Your task to perform on an android device: open sync settings in chrome Image 0: 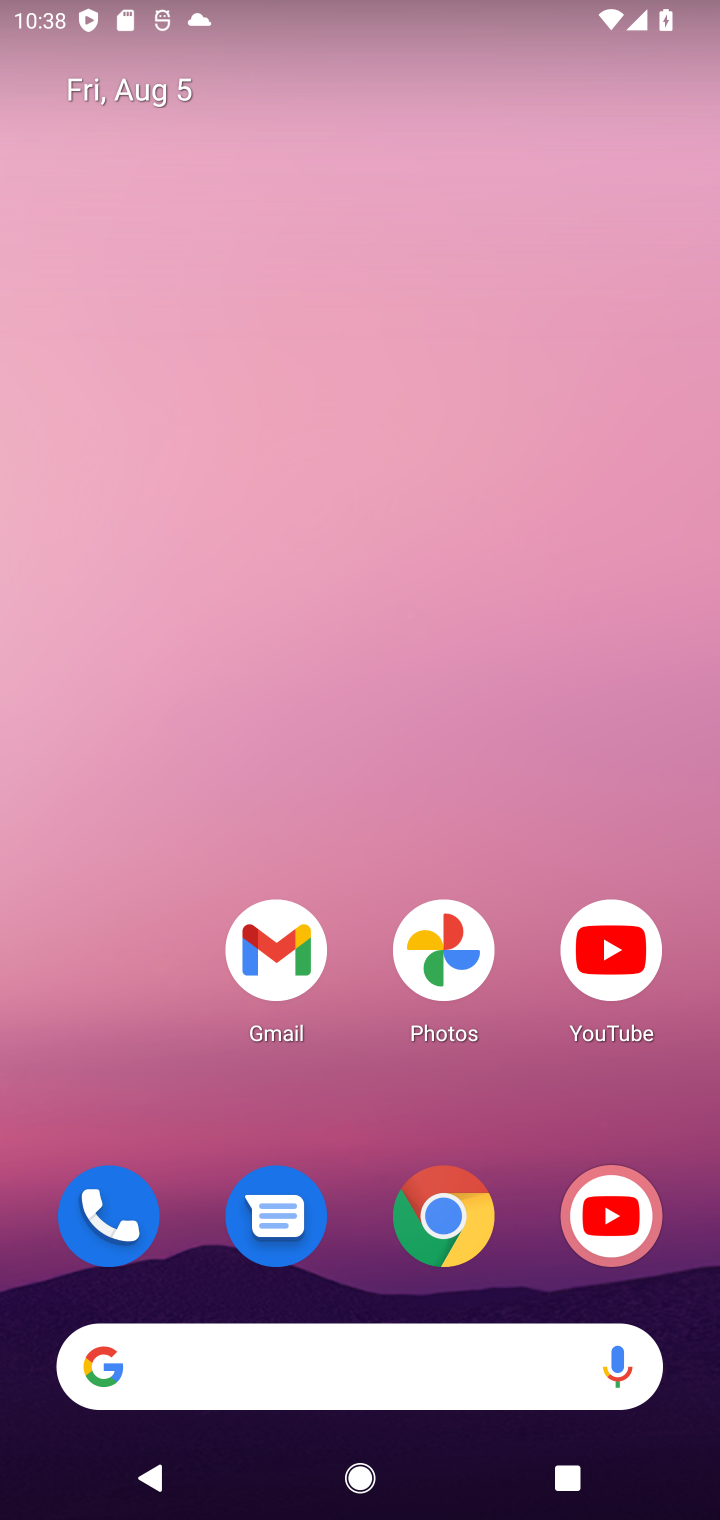
Step 0: drag from (440, 1366) to (398, 217)
Your task to perform on an android device: open sync settings in chrome Image 1: 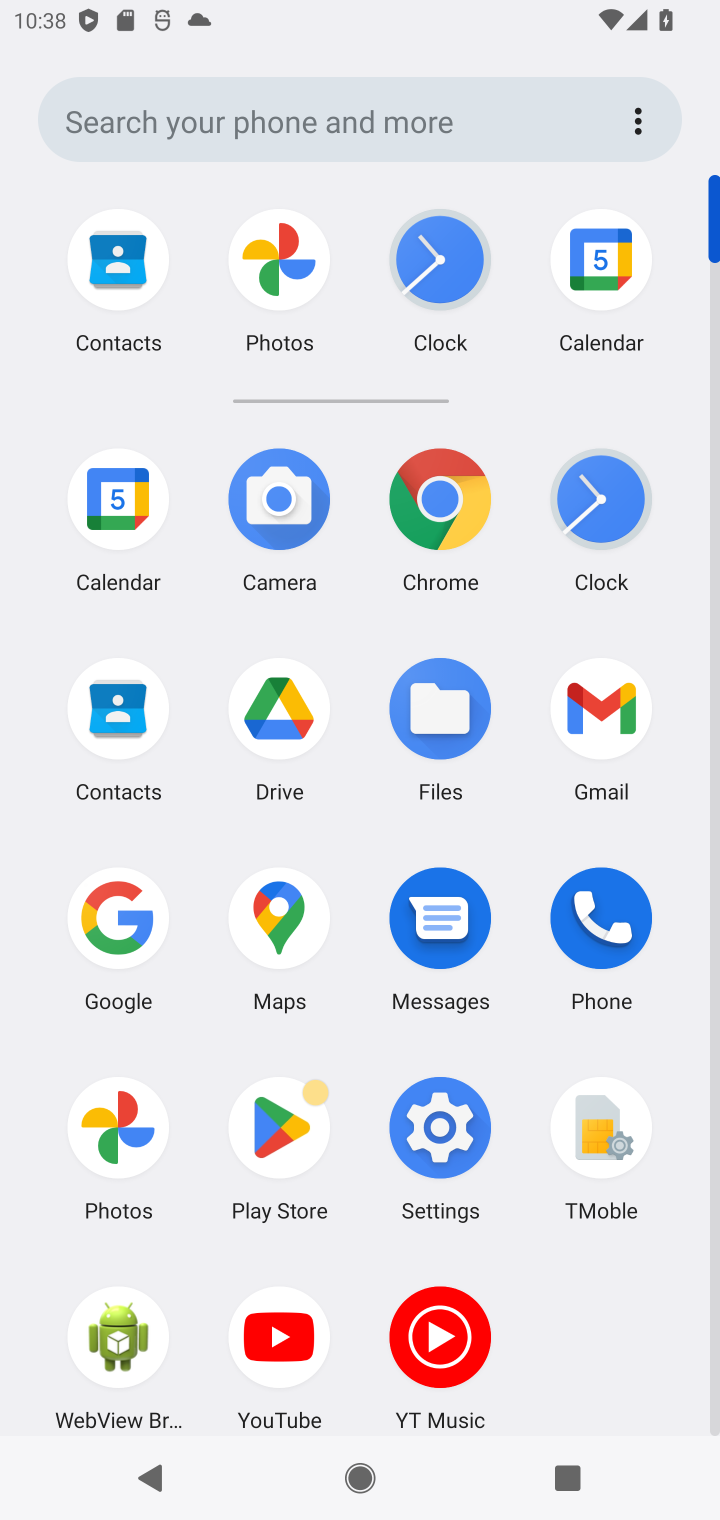
Step 1: click (438, 500)
Your task to perform on an android device: open sync settings in chrome Image 2: 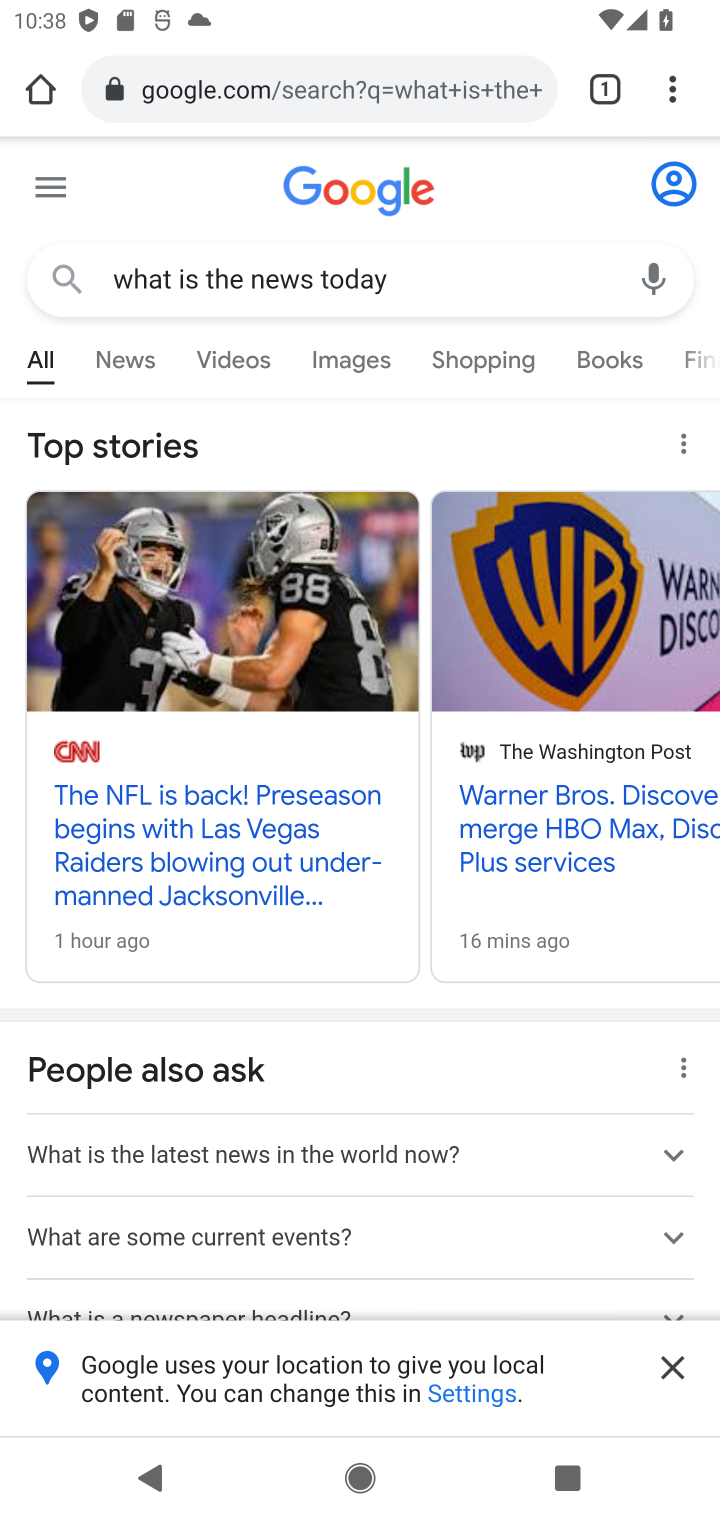
Step 2: drag from (674, 80) to (407, 1195)
Your task to perform on an android device: open sync settings in chrome Image 3: 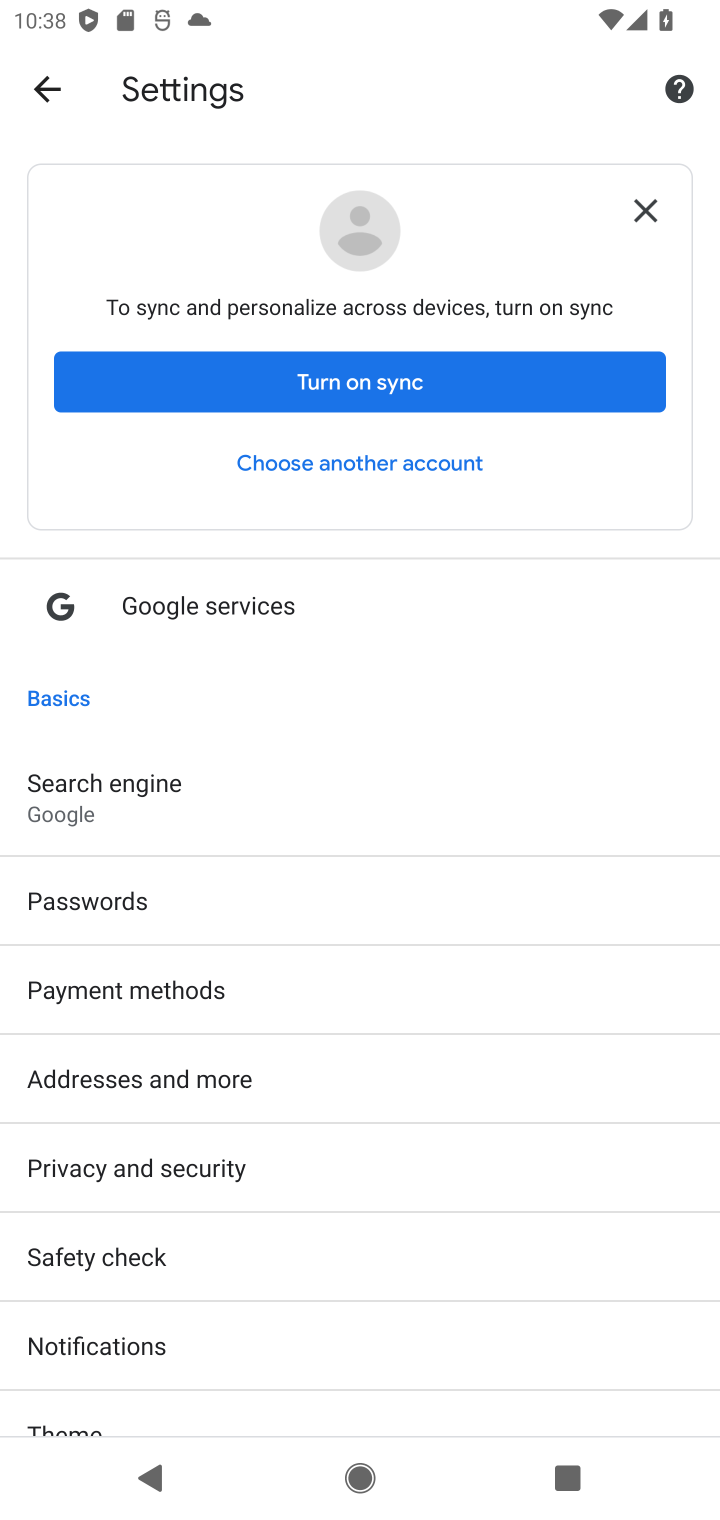
Step 3: drag from (255, 1374) to (268, 364)
Your task to perform on an android device: open sync settings in chrome Image 4: 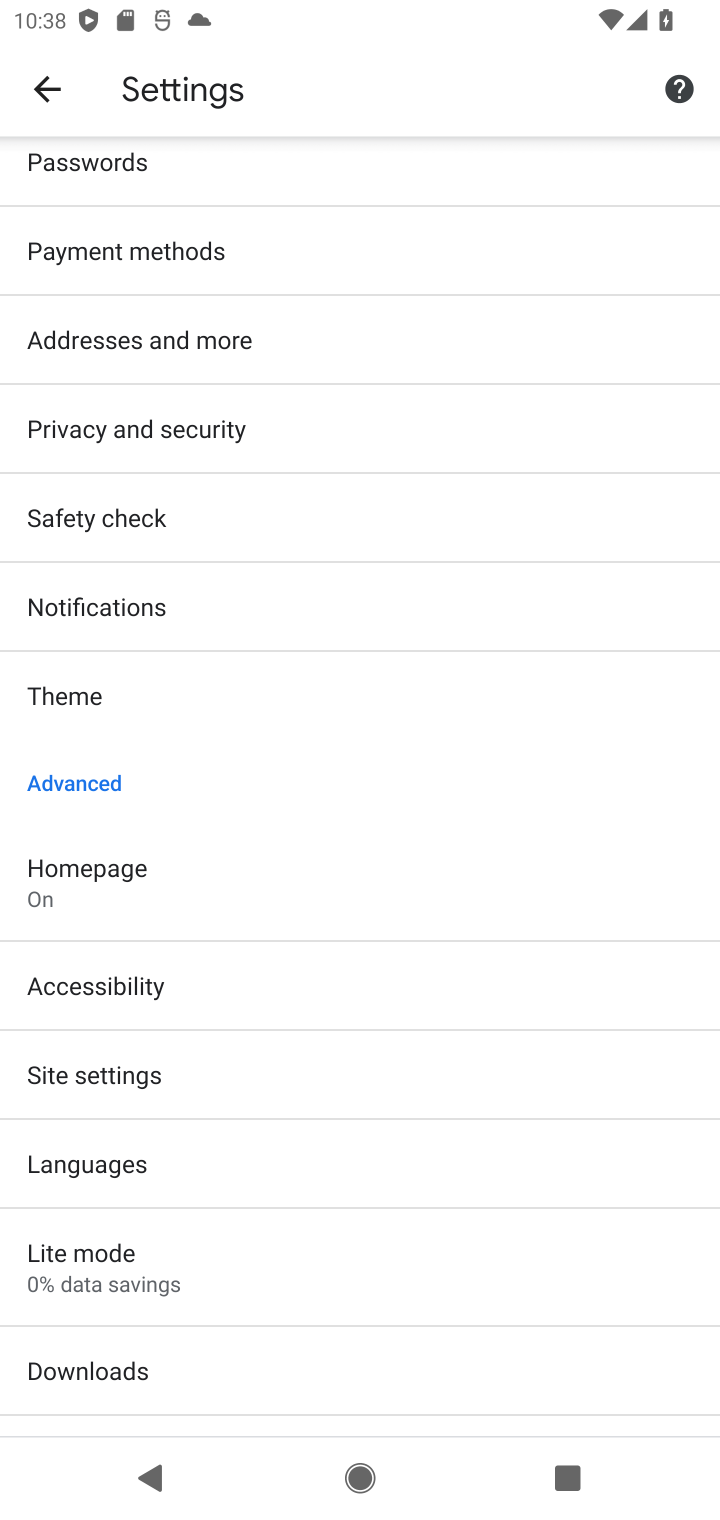
Step 4: click (131, 1078)
Your task to perform on an android device: open sync settings in chrome Image 5: 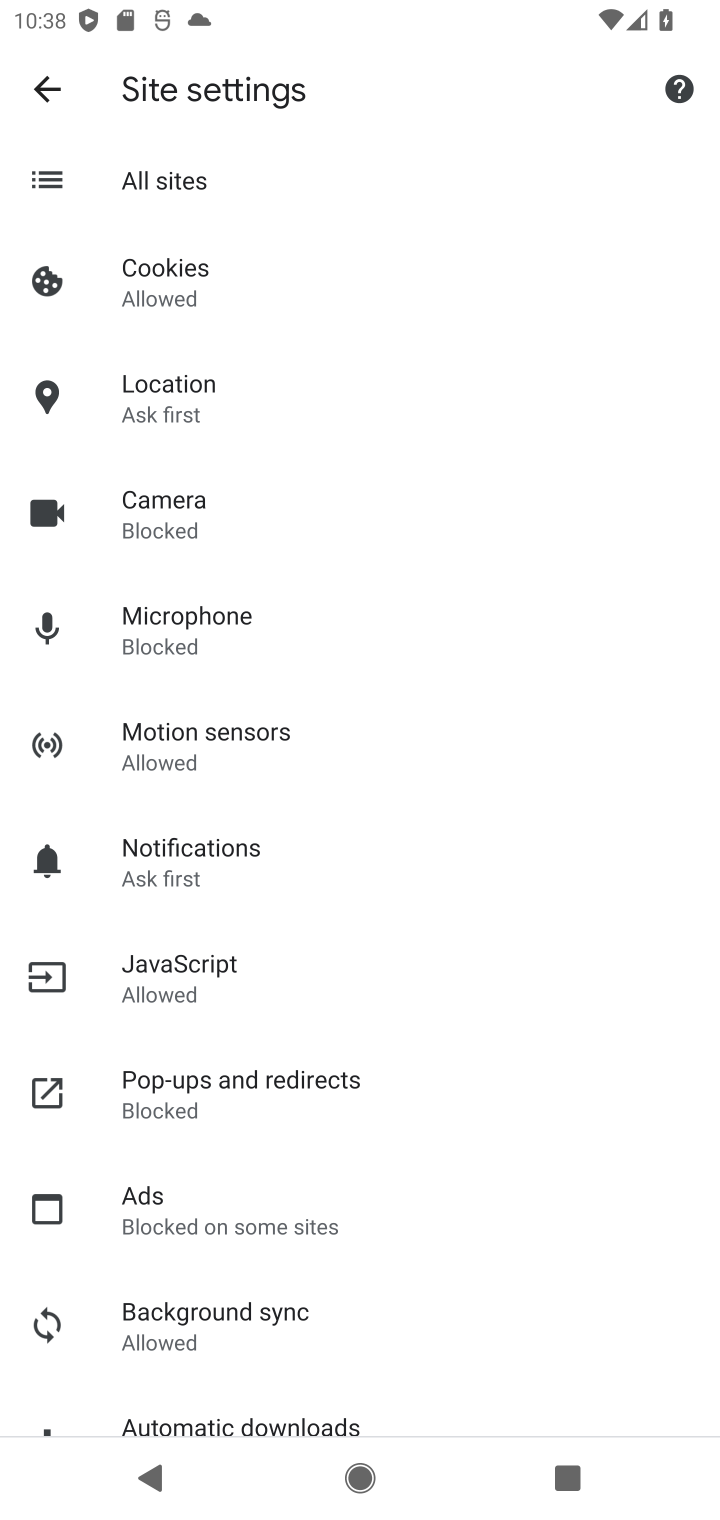
Step 5: click (218, 1333)
Your task to perform on an android device: open sync settings in chrome Image 6: 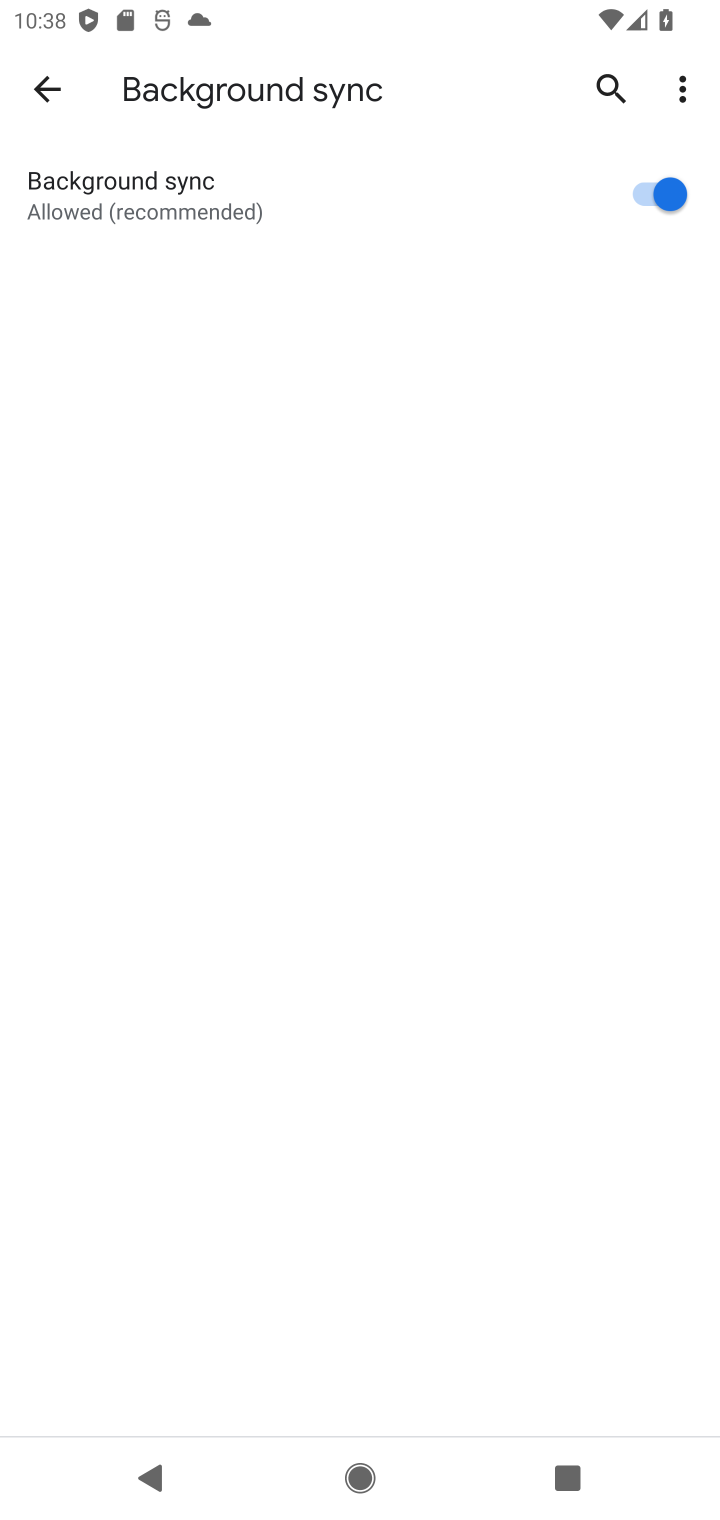
Step 6: task complete